Your task to perform on an android device: delete a single message in the gmail app Image 0: 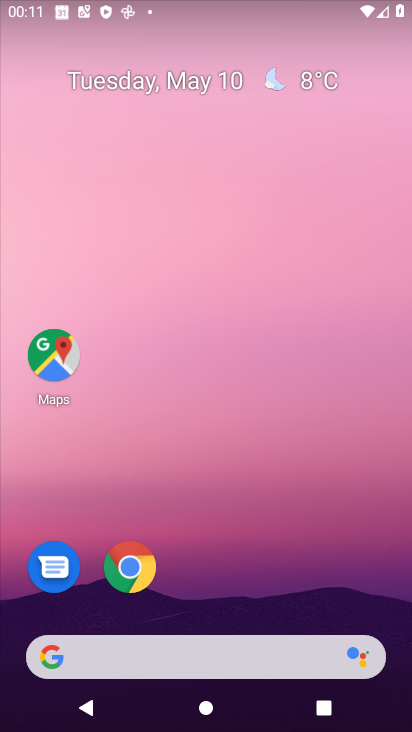
Step 0: drag from (177, 298) to (164, 158)
Your task to perform on an android device: delete a single message in the gmail app Image 1: 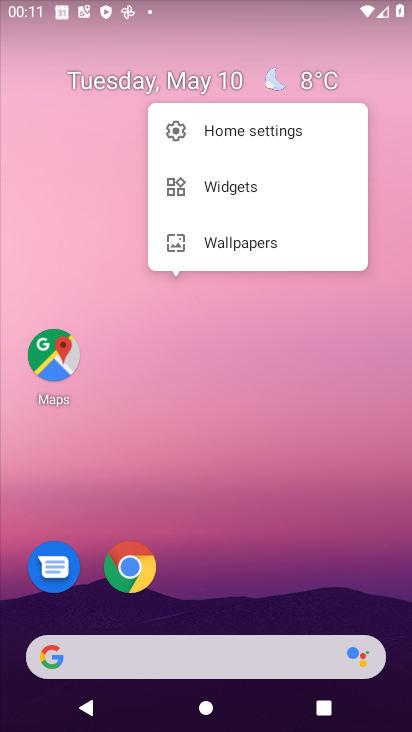
Step 1: drag from (208, 471) to (142, 67)
Your task to perform on an android device: delete a single message in the gmail app Image 2: 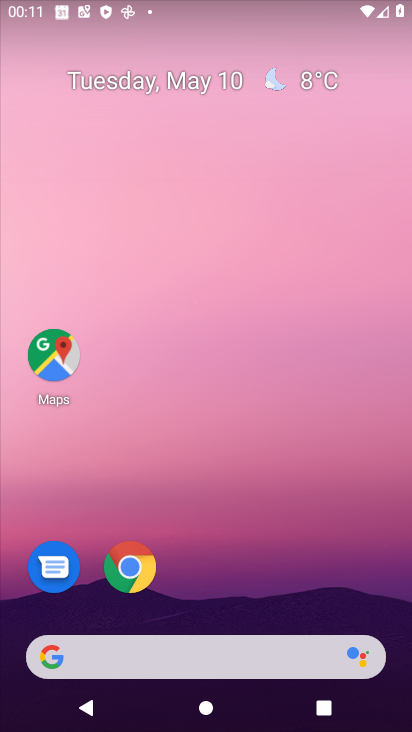
Step 2: drag from (223, 480) to (214, 18)
Your task to perform on an android device: delete a single message in the gmail app Image 3: 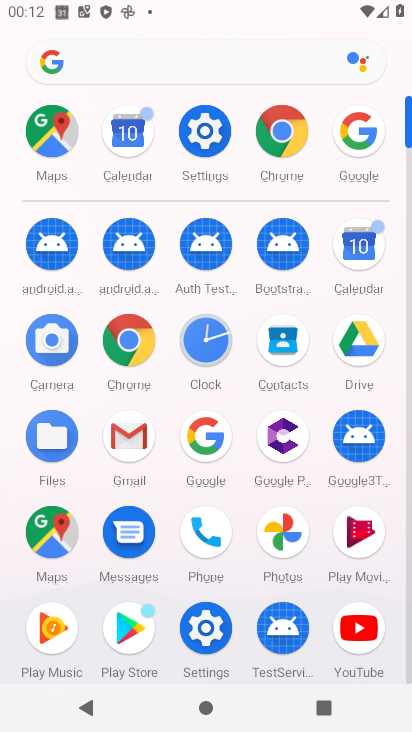
Step 3: click (129, 433)
Your task to perform on an android device: delete a single message in the gmail app Image 4: 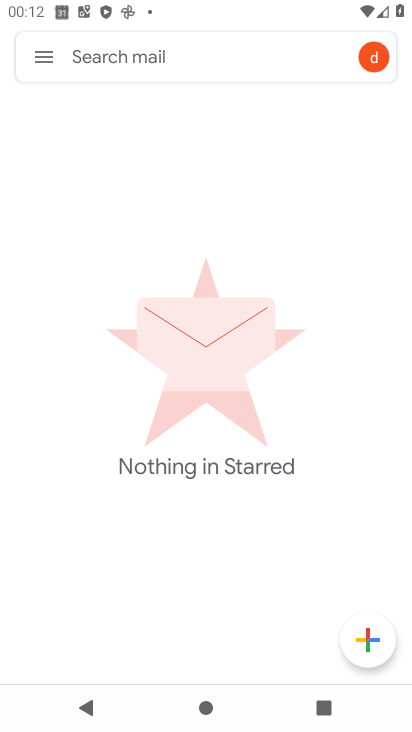
Step 4: click (39, 54)
Your task to perform on an android device: delete a single message in the gmail app Image 5: 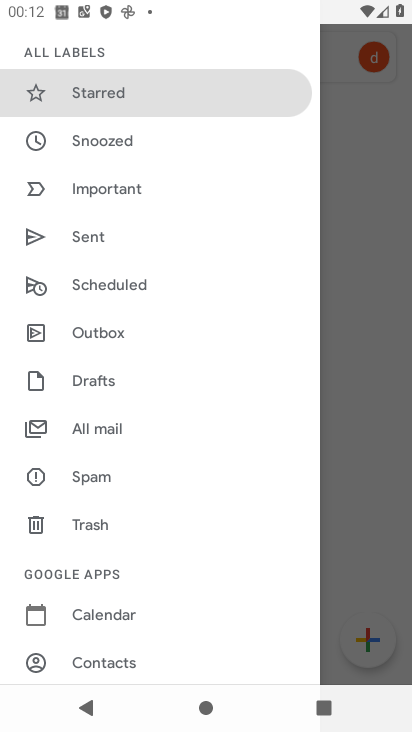
Step 5: click (122, 433)
Your task to perform on an android device: delete a single message in the gmail app Image 6: 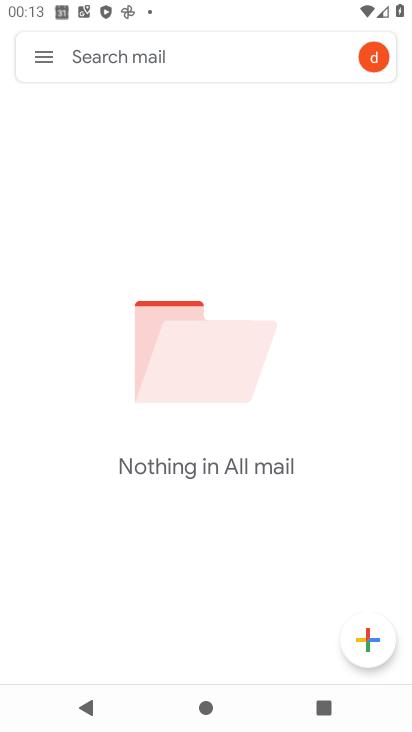
Step 6: click (46, 61)
Your task to perform on an android device: delete a single message in the gmail app Image 7: 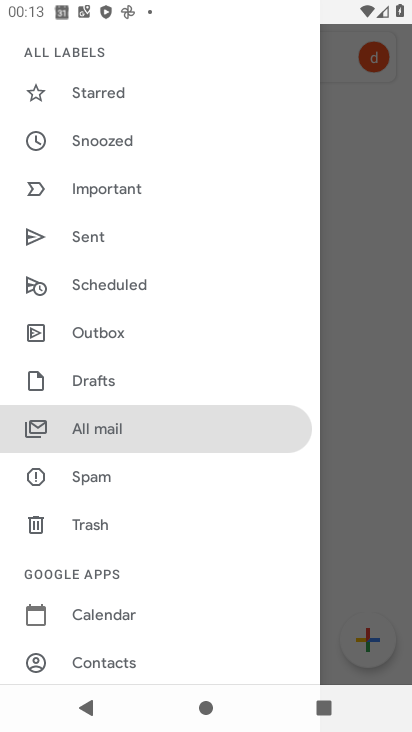
Step 7: drag from (177, 253) to (181, 382)
Your task to perform on an android device: delete a single message in the gmail app Image 8: 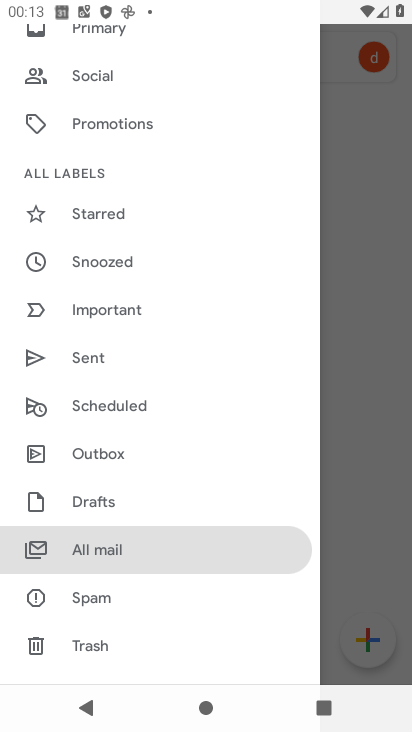
Step 8: drag from (185, 273) to (246, 481)
Your task to perform on an android device: delete a single message in the gmail app Image 9: 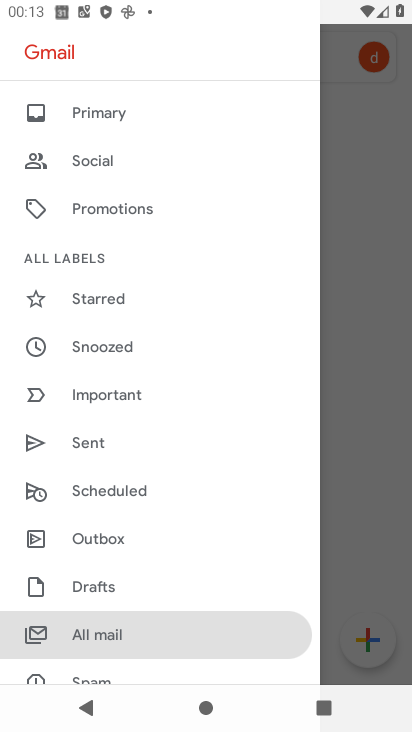
Step 9: click (110, 114)
Your task to perform on an android device: delete a single message in the gmail app Image 10: 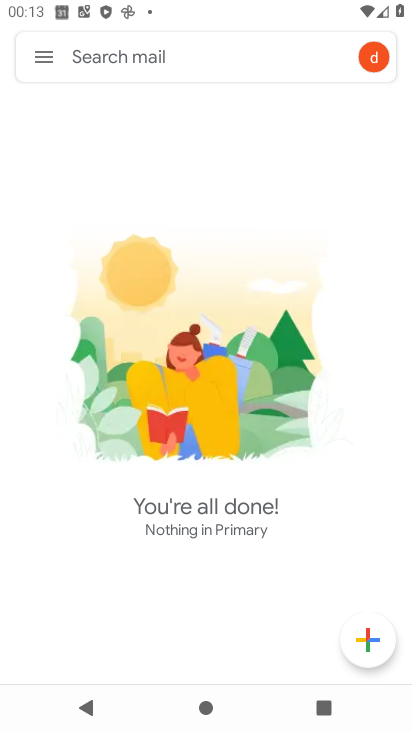
Step 10: click (48, 59)
Your task to perform on an android device: delete a single message in the gmail app Image 11: 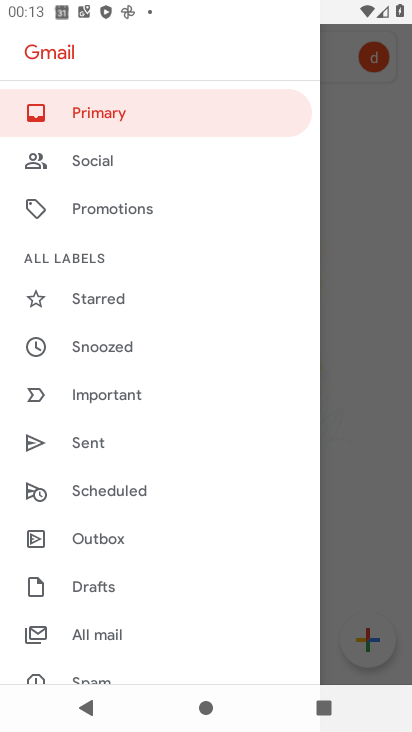
Step 11: drag from (118, 545) to (169, 367)
Your task to perform on an android device: delete a single message in the gmail app Image 12: 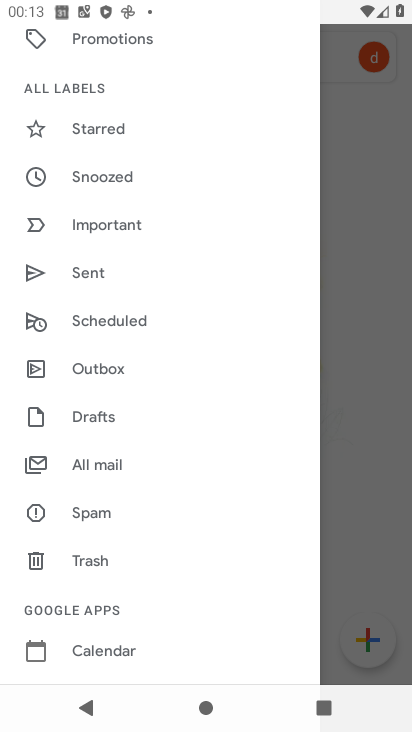
Step 12: drag from (153, 512) to (171, 344)
Your task to perform on an android device: delete a single message in the gmail app Image 13: 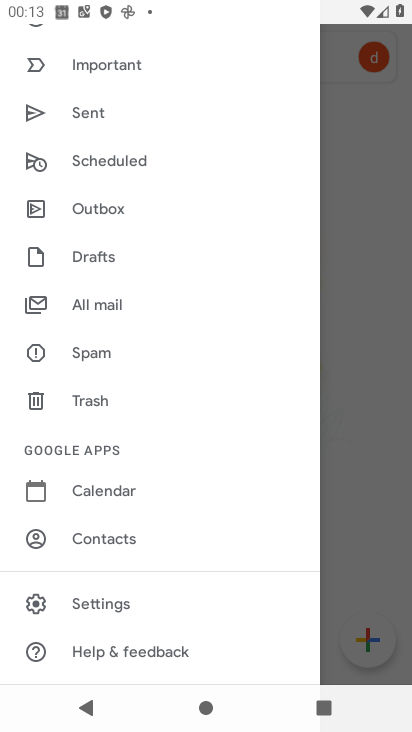
Step 13: drag from (133, 456) to (155, 346)
Your task to perform on an android device: delete a single message in the gmail app Image 14: 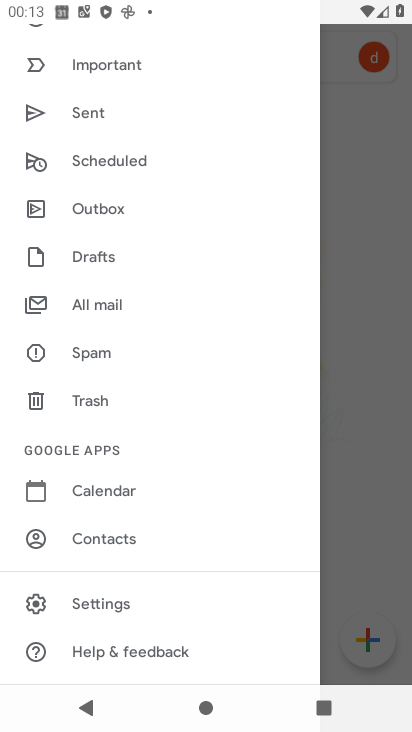
Step 14: click (113, 607)
Your task to perform on an android device: delete a single message in the gmail app Image 15: 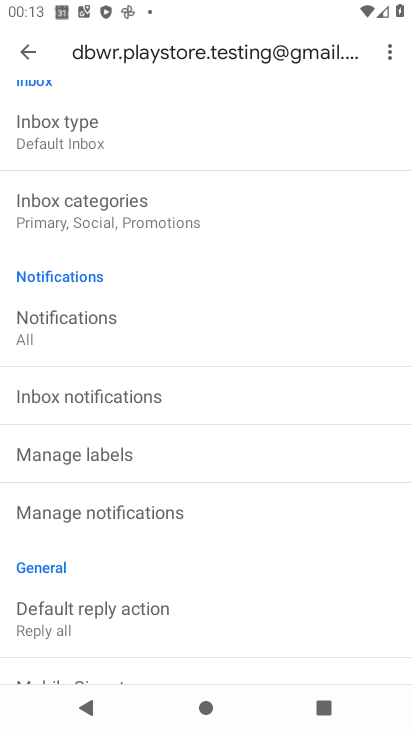
Step 15: press back button
Your task to perform on an android device: delete a single message in the gmail app Image 16: 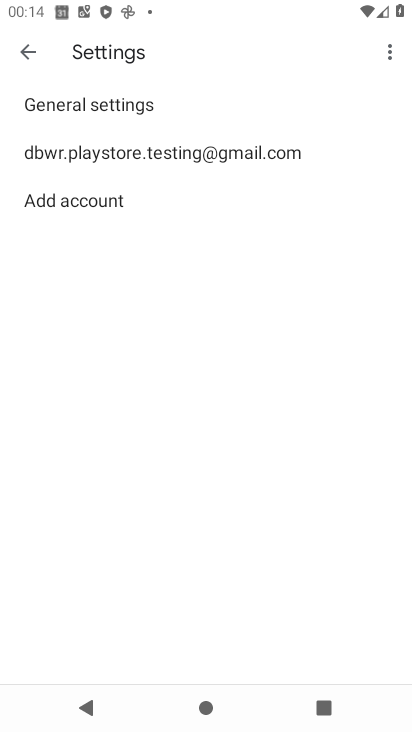
Step 16: press back button
Your task to perform on an android device: delete a single message in the gmail app Image 17: 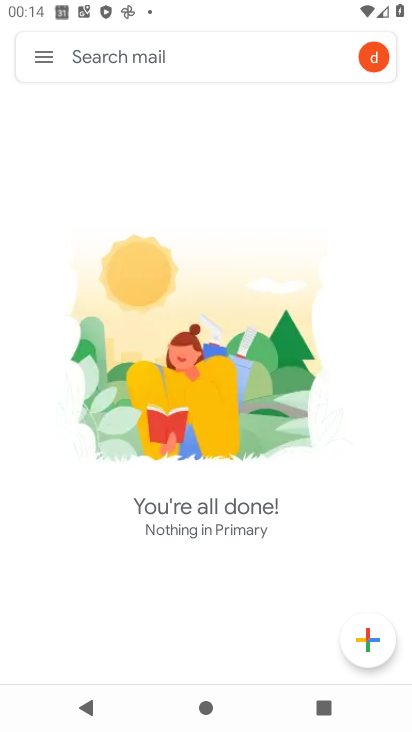
Step 17: click (48, 55)
Your task to perform on an android device: delete a single message in the gmail app Image 18: 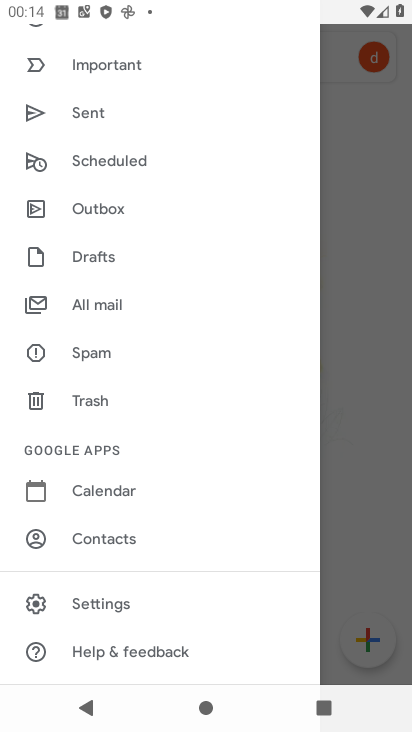
Step 18: drag from (130, 125) to (150, 362)
Your task to perform on an android device: delete a single message in the gmail app Image 19: 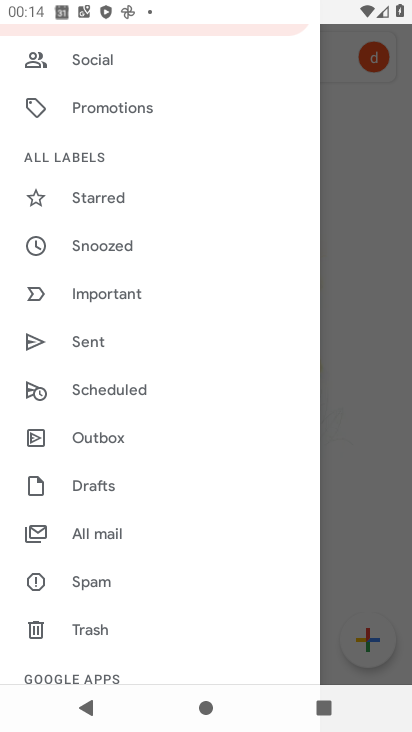
Step 19: drag from (146, 193) to (139, 325)
Your task to perform on an android device: delete a single message in the gmail app Image 20: 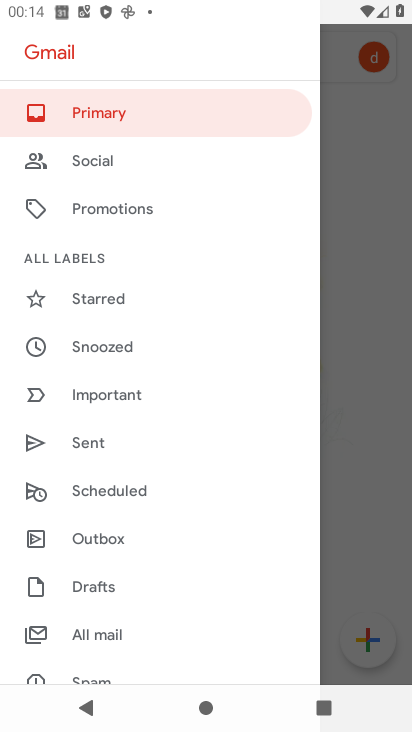
Step 20: drag from (121, 460) to (178, 317)
Your task to perform on an android device: delete a single message in the gmail app Image 21: 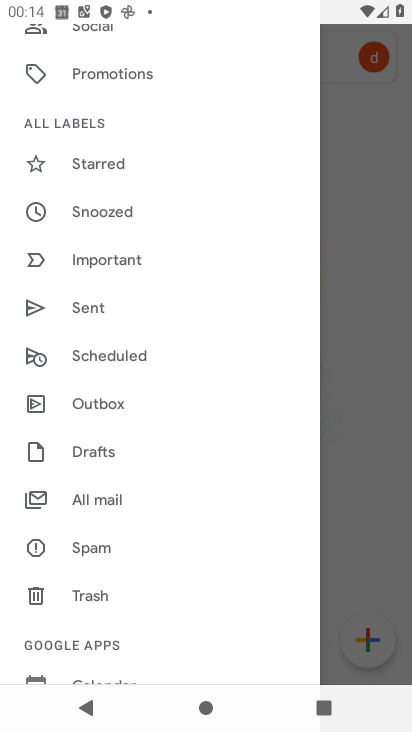
Step 21: click (109, 494)
Your task to perform on an android device: delete a single message in the gmail app Image 22: 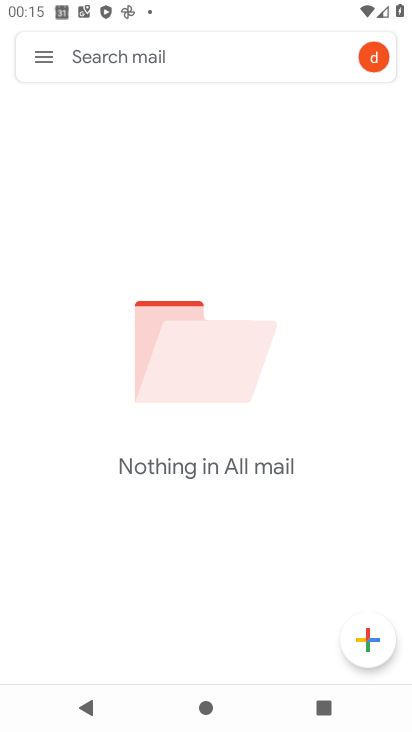
Step 22: task complete